Your task to perform on an android device: Turn on the flashlight Image 0: 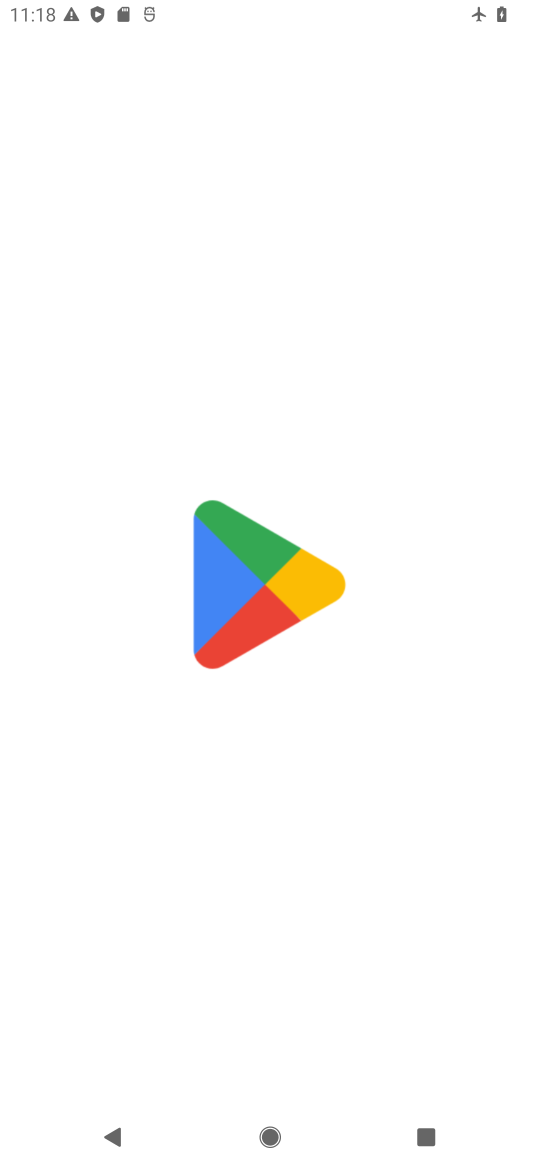
Step 0: press home button
Your task to perform on an android device: Turn on the flashlight Image 1: 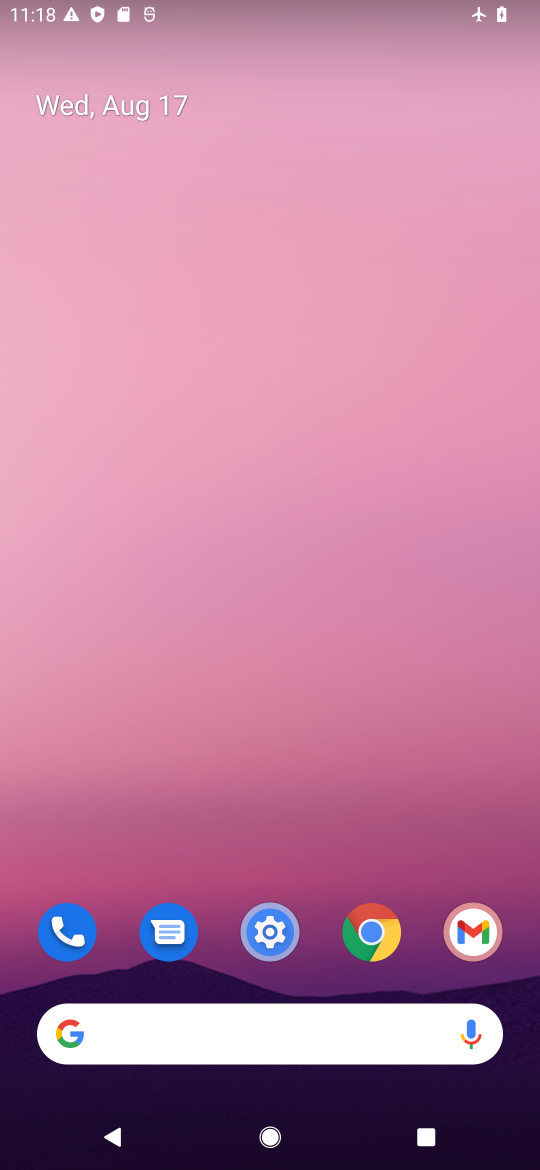
Step 1: click (282, 910)
Your task to perform on an android device: Turn on the flashlight Image 2: 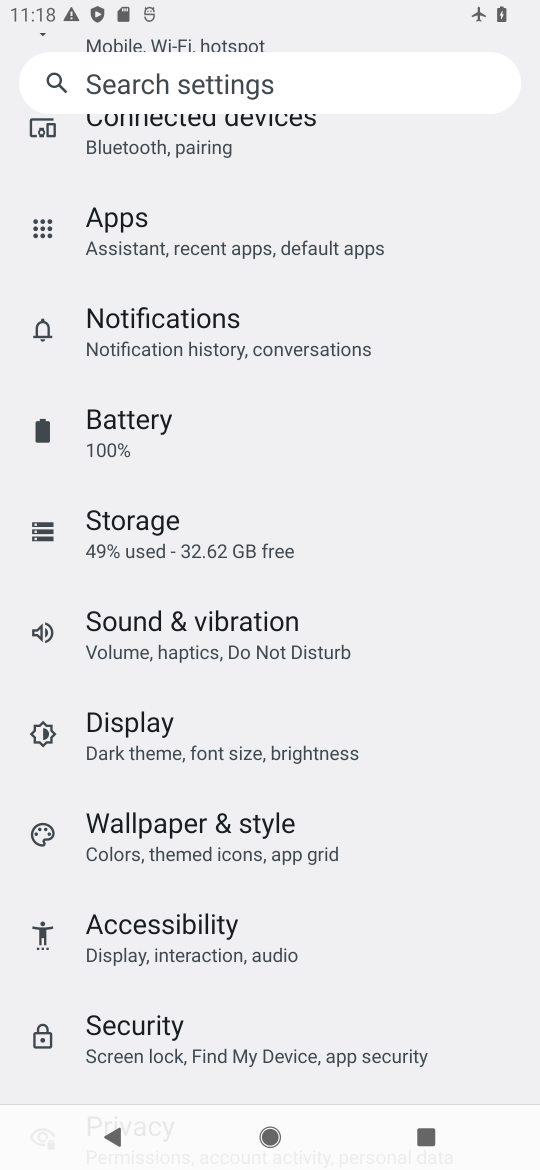
Step 2: task complete